Your task to perform on an android device: open app "Indeed Job Search" (install if not already installed) Image 0: 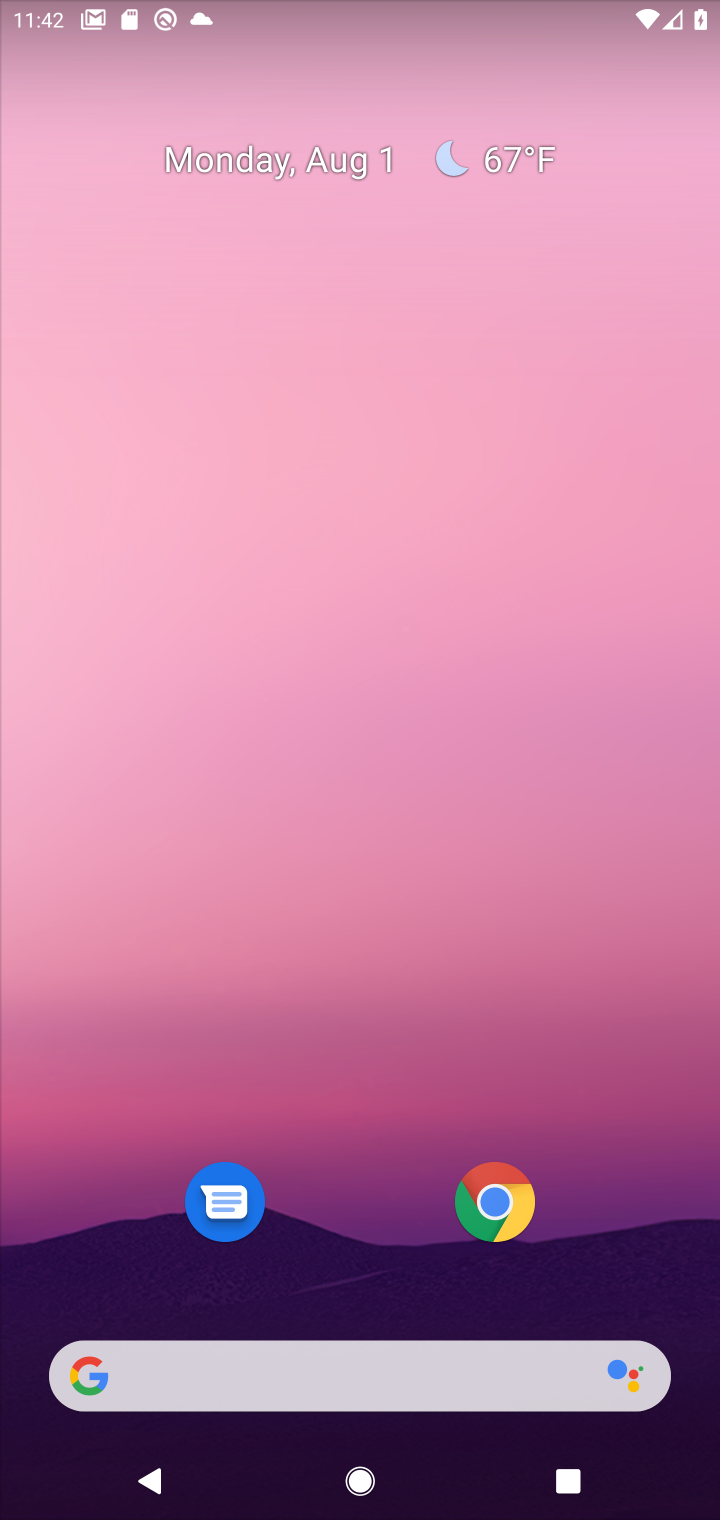
Step 0: drag from (321, 1106) to (396, 162)
Your task to perform on an android device: open app "Indeed Job Search" (install if not already installed) Image 1: 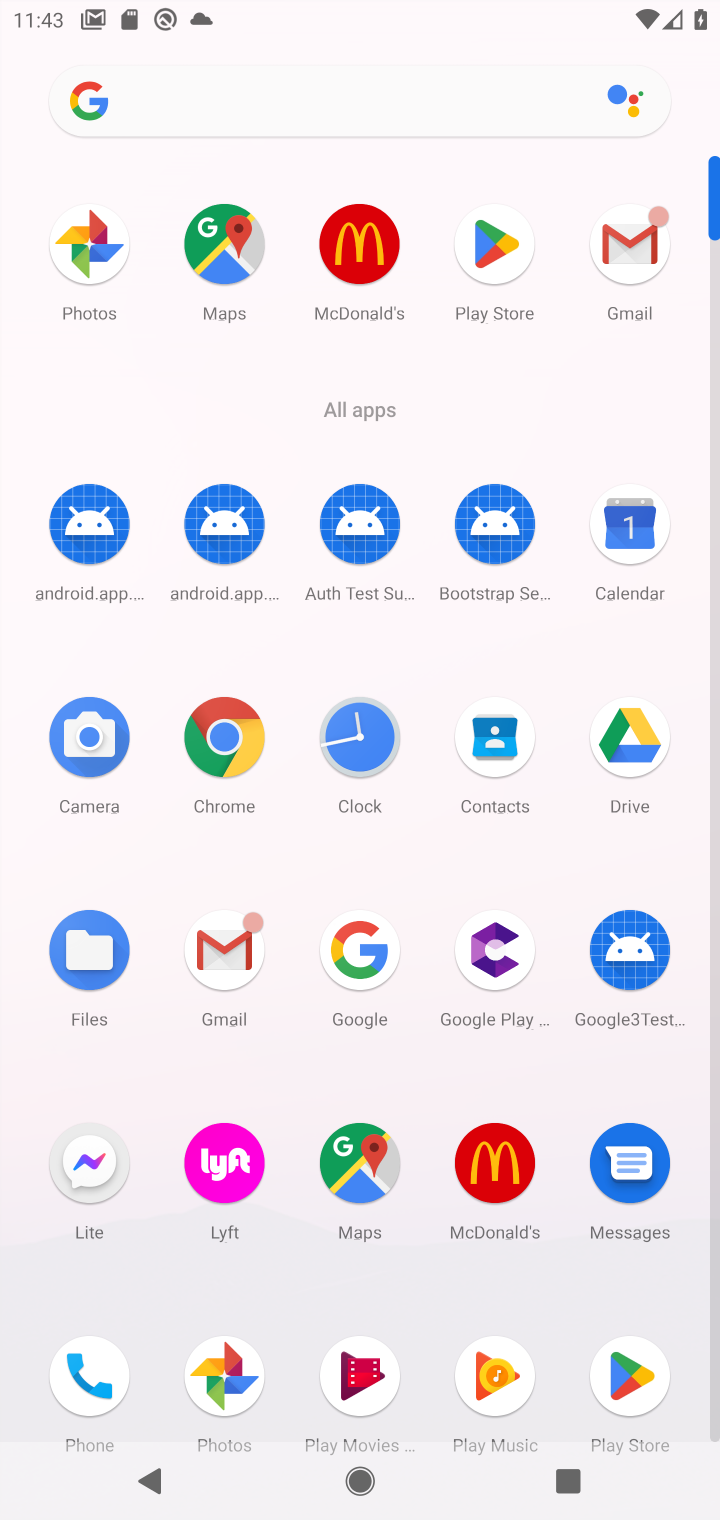
Step 1: drag from (409, 949) to (409, 808)
Your task to perform on an android device: open app "Indeed Job Search" (install if not already installed) Image 2: 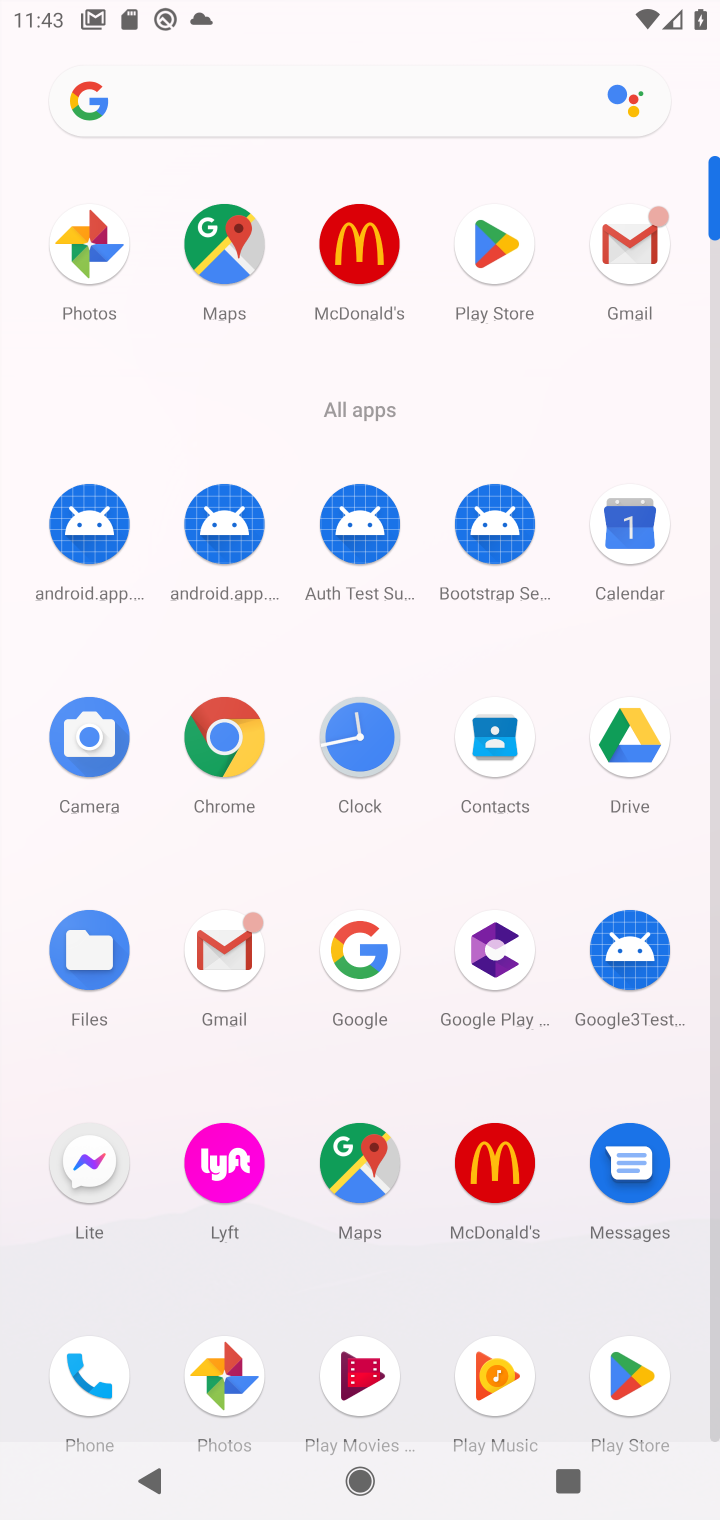
Step 2: click (641, 1364)
Your task to perform on an android device: open app "Indeed Job Search" (install if not already installed) Image 3: 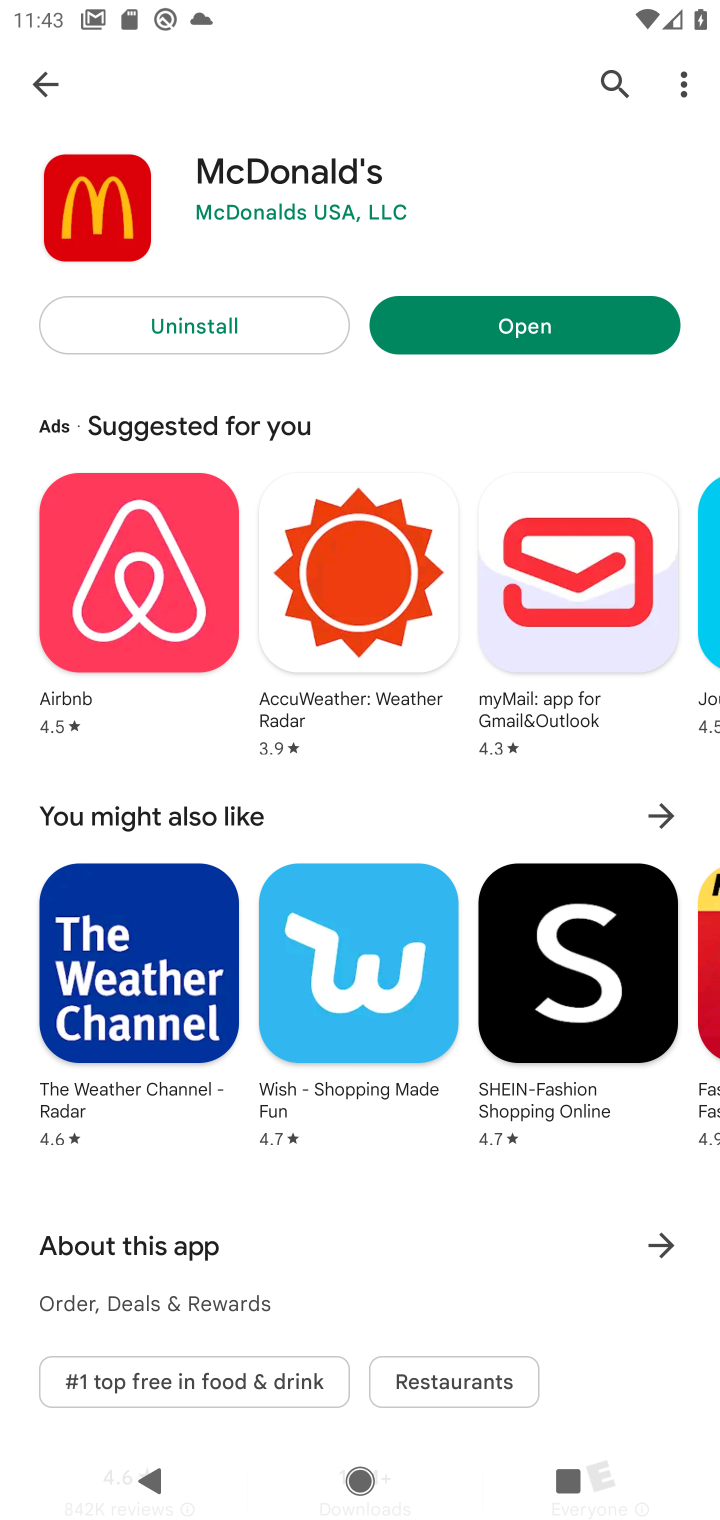
Step 3: click (34, 88)
Your task to perform on an android device: open app "Indeed Job Search" (install if not already installed) Image 4: 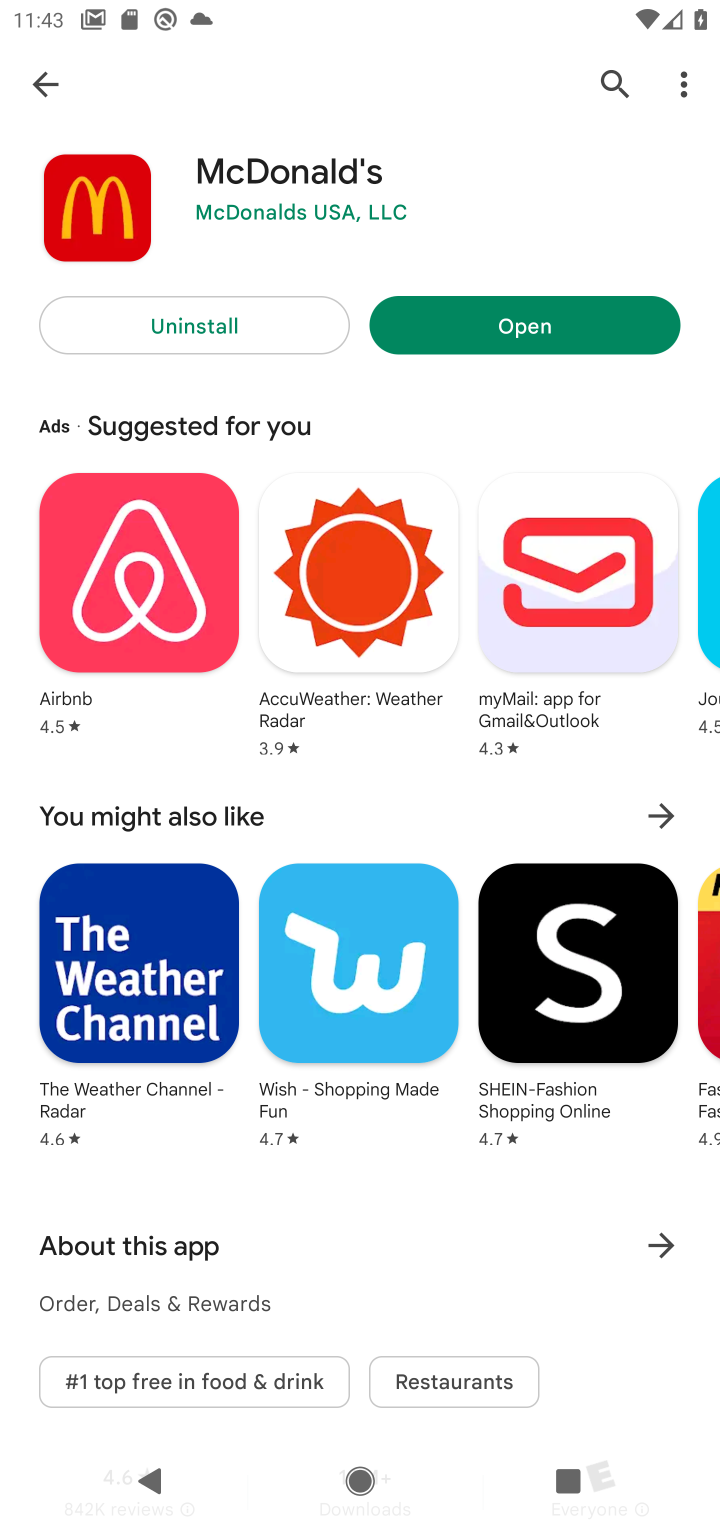
Step 4: click (37, 88)
Your task to perform on an android device: open app "Indeed Job Search" (install if not already installed) Image 5: 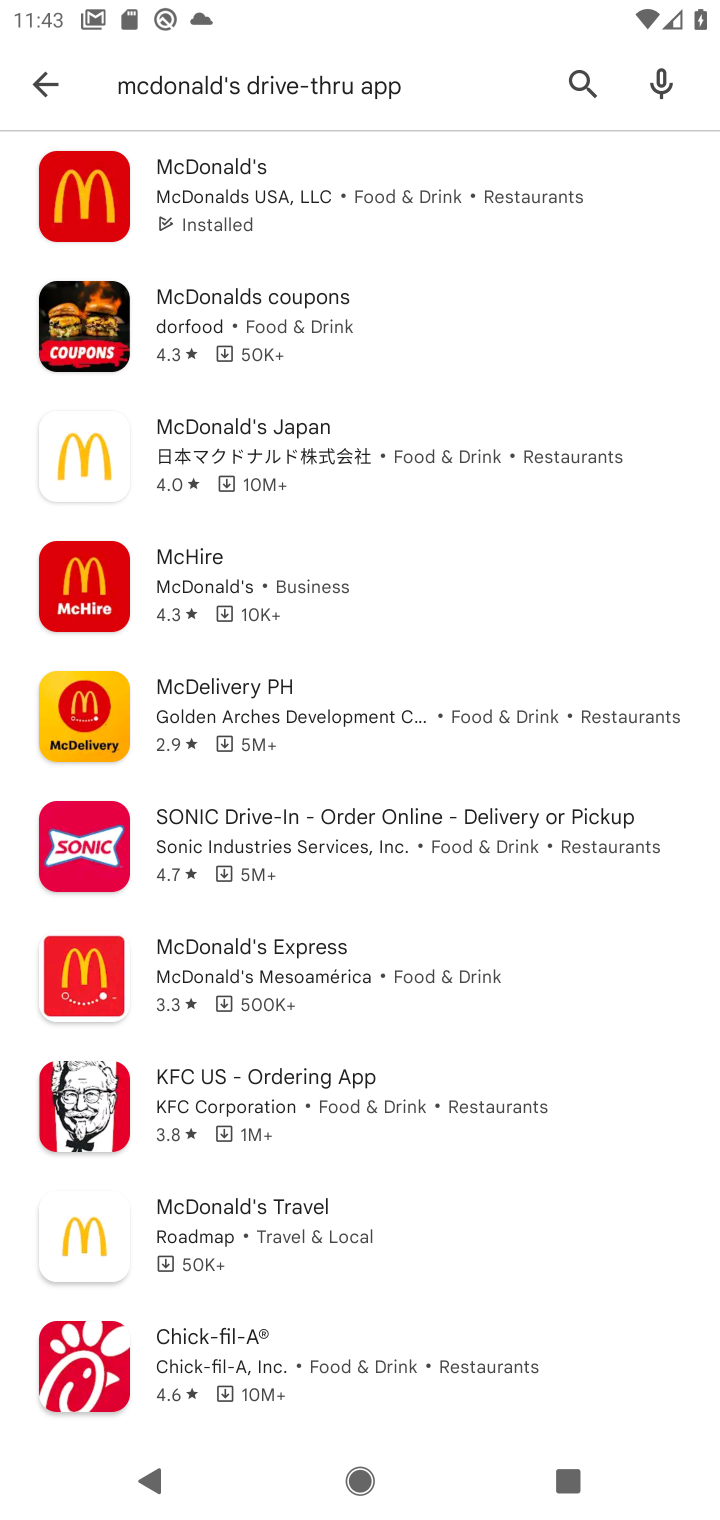
Step 5: click (47, 81)
Your task to perform on an android device: open app "Indeed Job Search" (install if not already installed) Image 6: 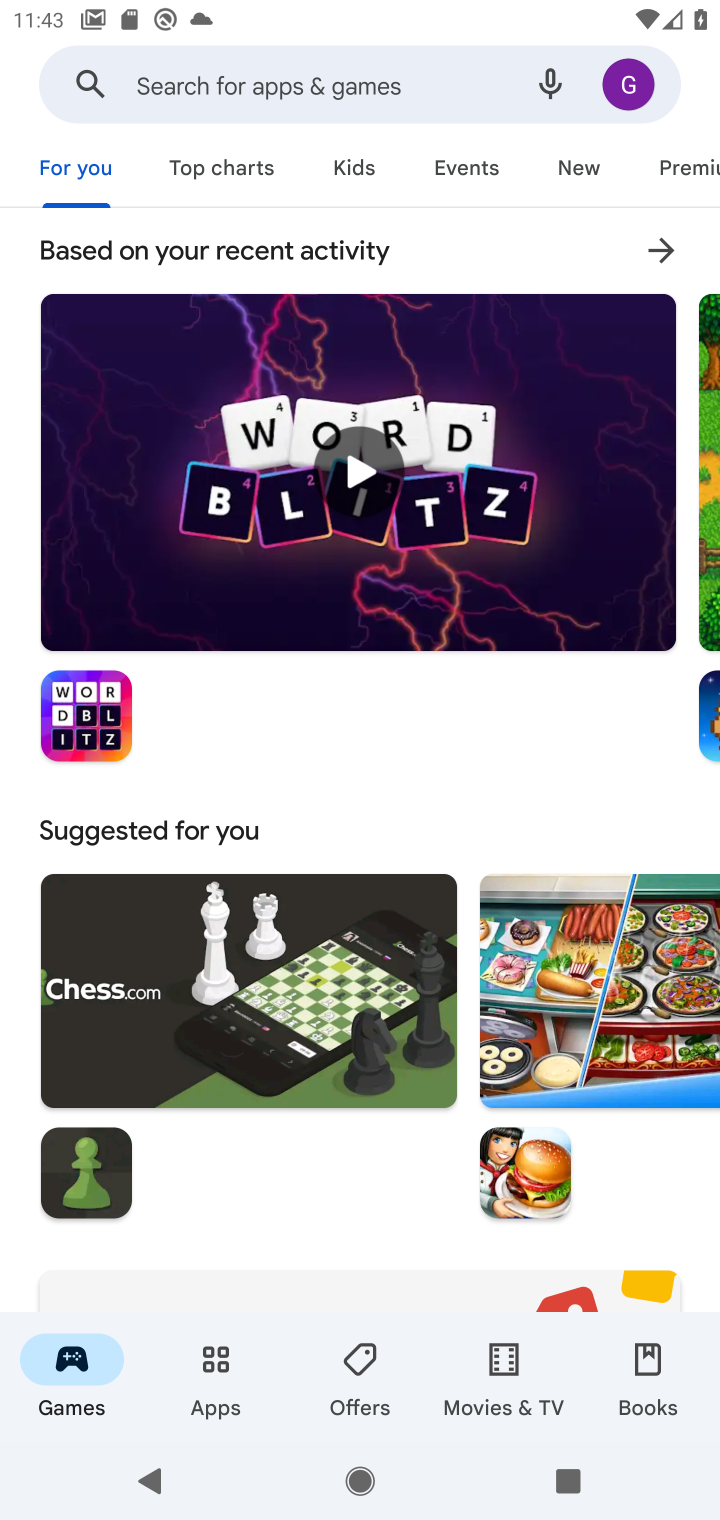
Step 6: click (260, 91)
Your task to perform on an android device: open app "Indeed Job Search" (install if not already installed) Image 7: 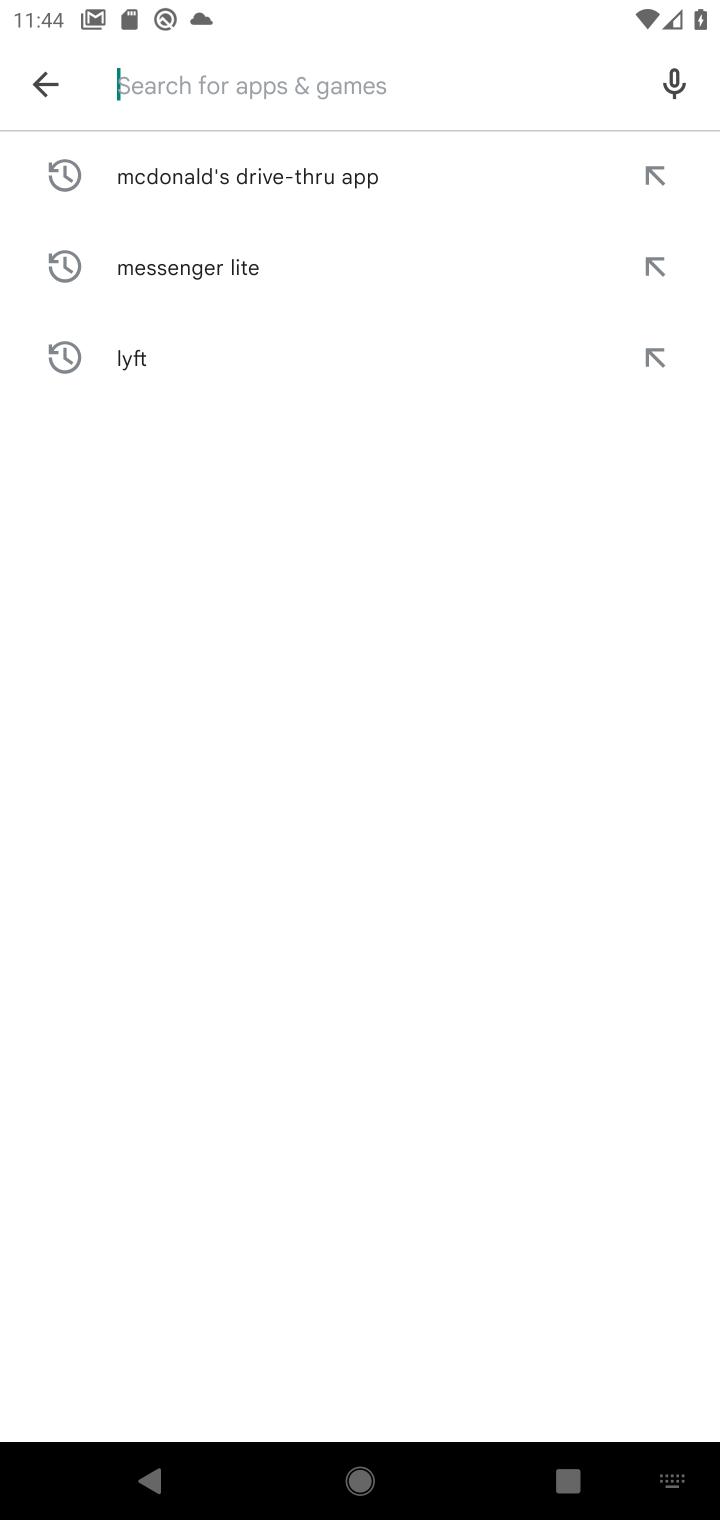
Step 7: type "Indeed Job Search"
Your task to perform on an android device: open app "Indeed Job Search" (install if not already installed) Image 8: 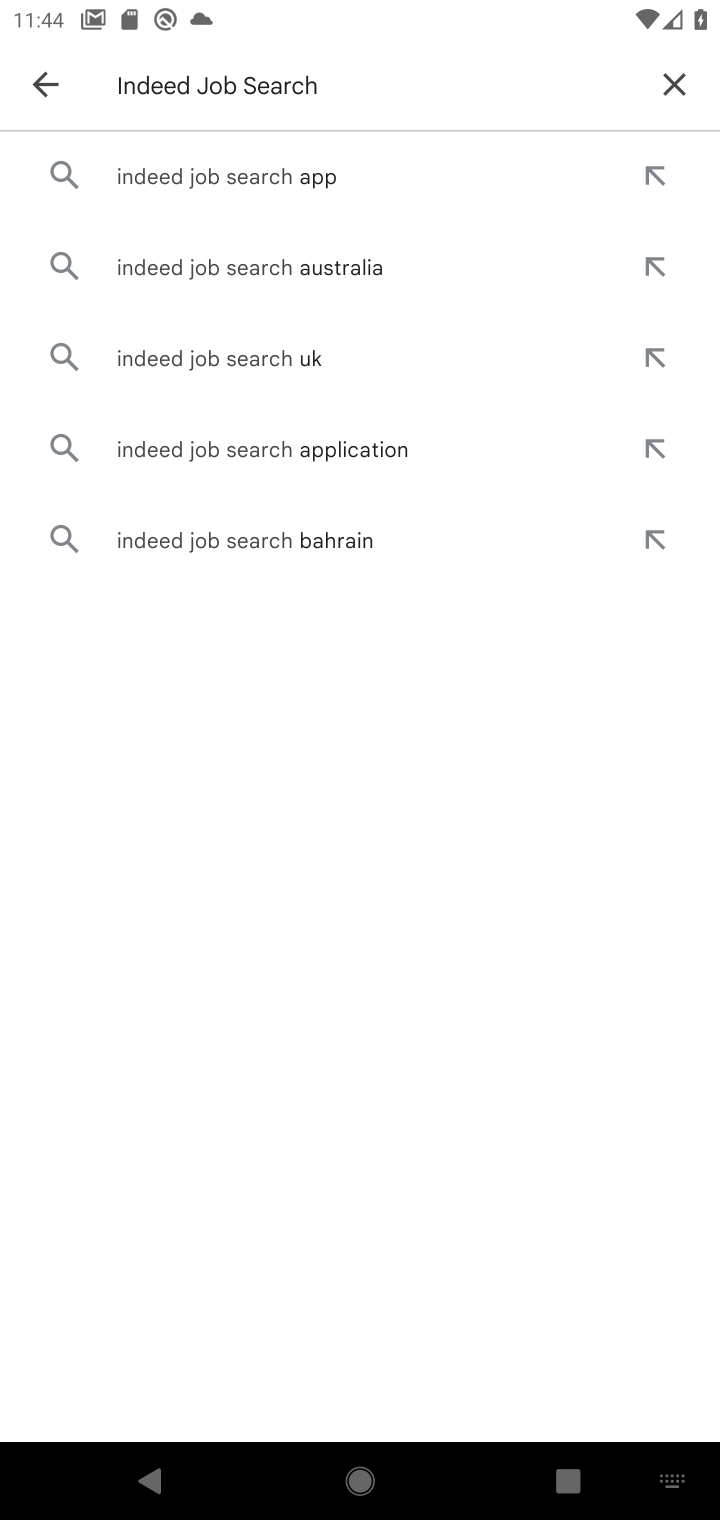
Step 8: click (251, 172)
Your task to perform on an android device: open app "Indeed Job Search" (install if not already installed) Image 9: 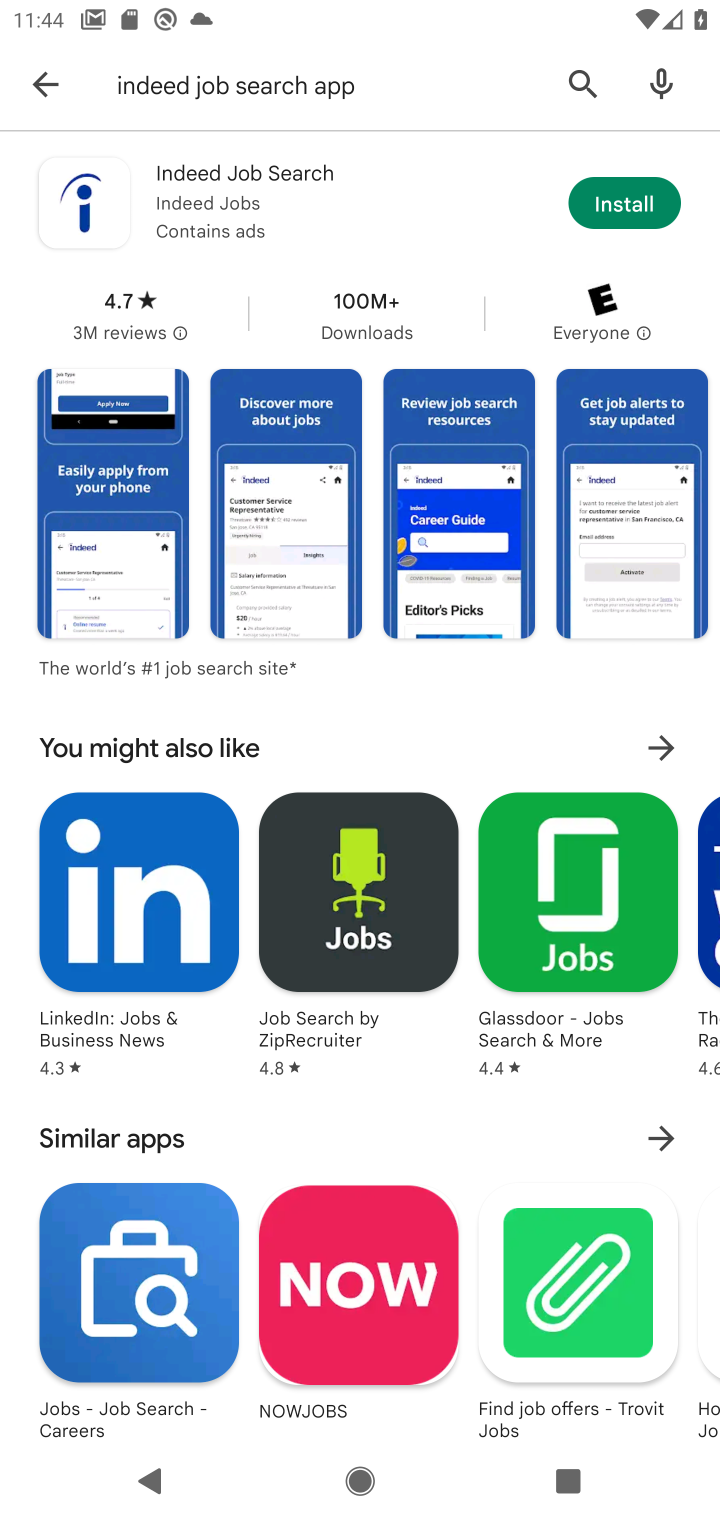
Step 9: click (612, 188)
Your task to perform on an android device: open app "Indeed Job Search" (install if not already installed) Image 10: 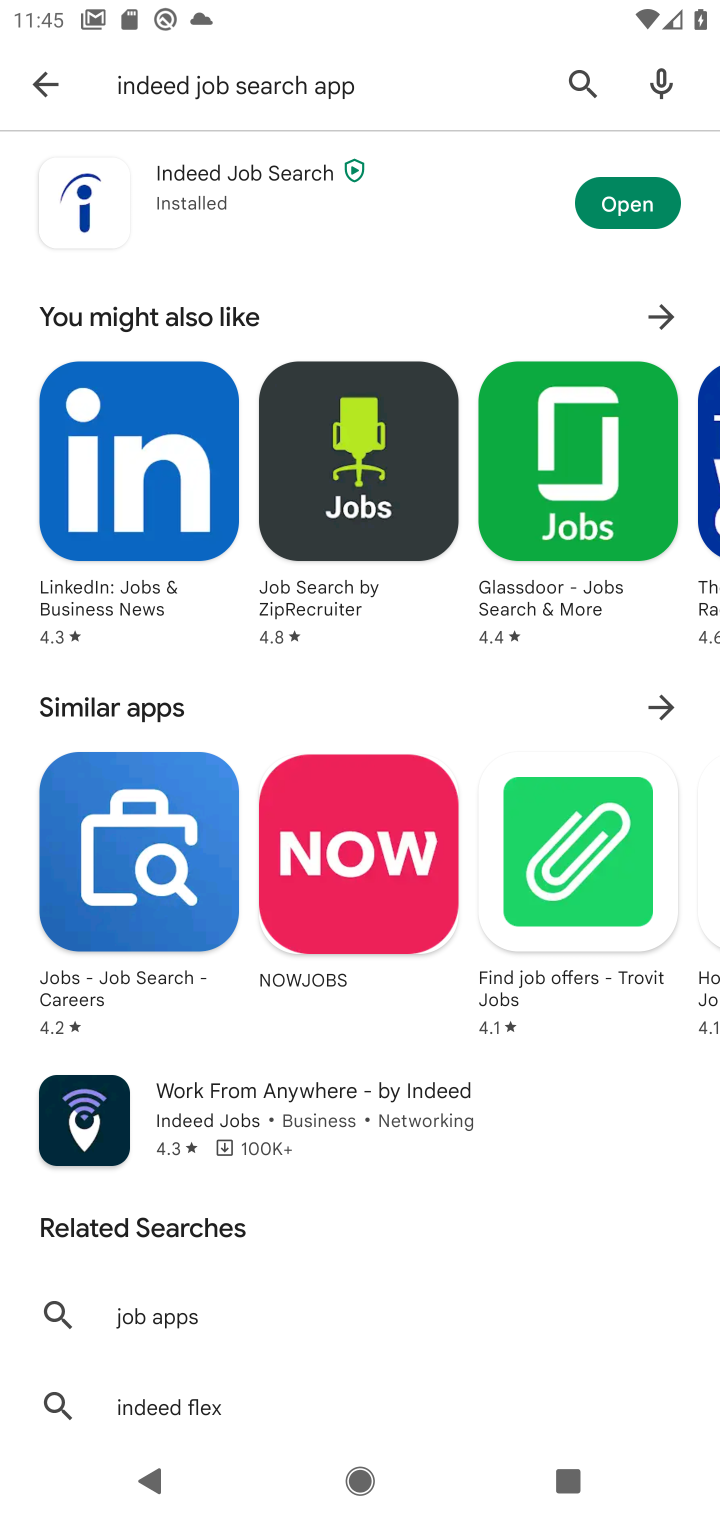
Step 10: click (652, 217)
Your task to perform on an android device: open app "Indeed Job Search" (install if not already installed) Image 11: 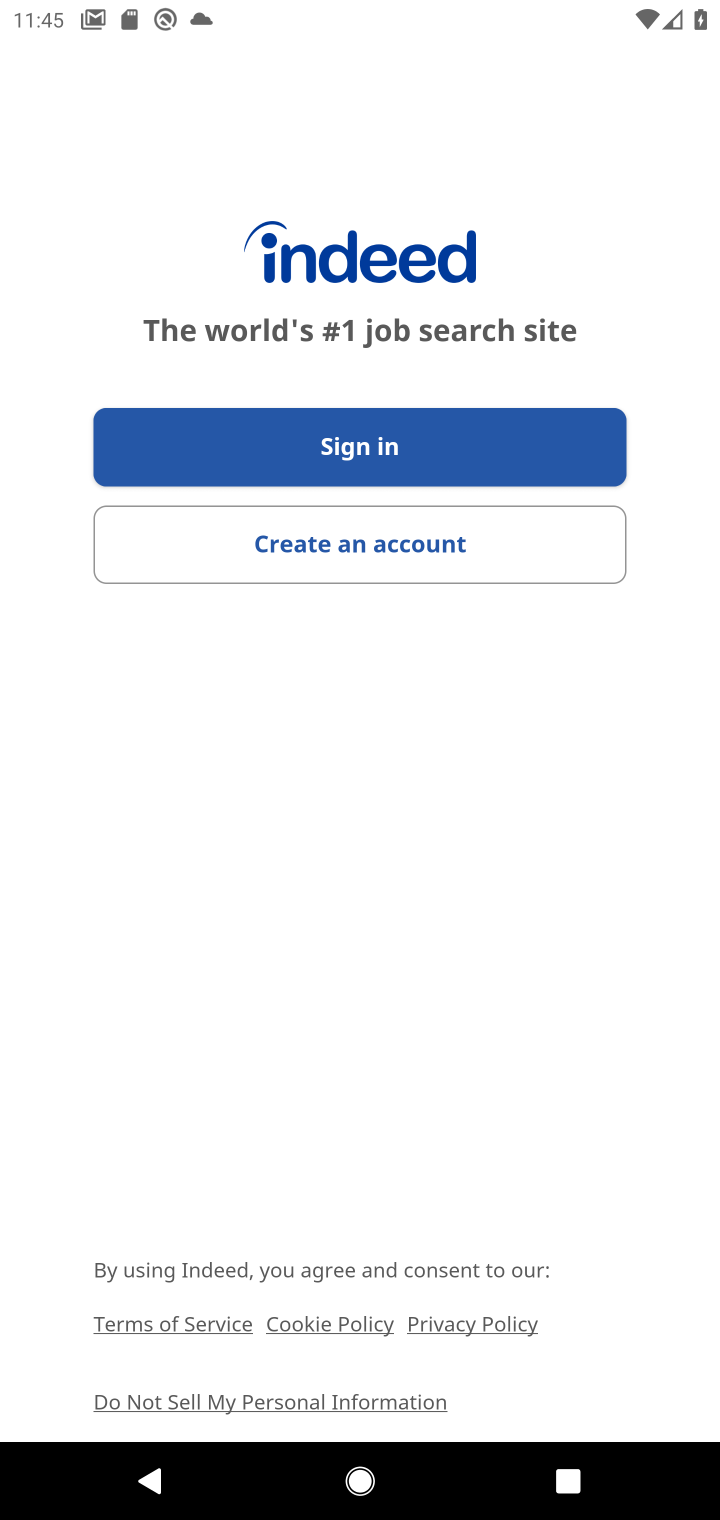
Step 11: task complete